Your task to perform on an android device: What's the weather going to be this weekend? Image 0: 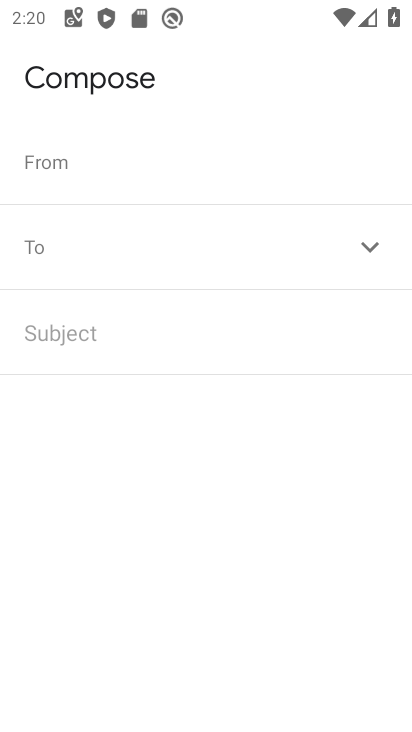
Step 0: drag from (236, 481) to (217, 133)
Your task to perform on an android device: What's the weather going to be this weekend? Image 1: 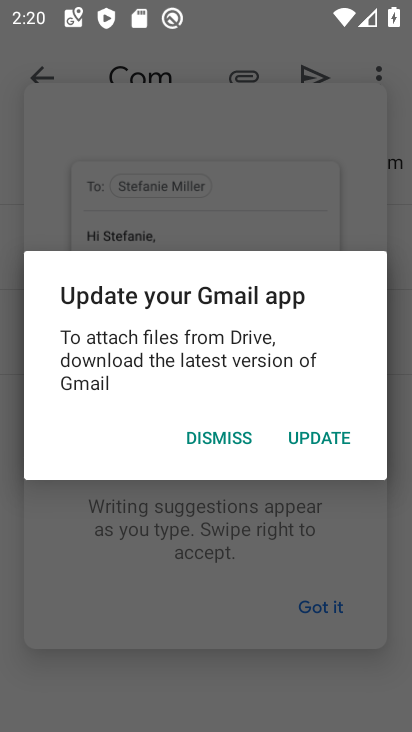
Step 1: press home button
Your task to perform on an android device: What's the weather going to be this weekend? Image 2: 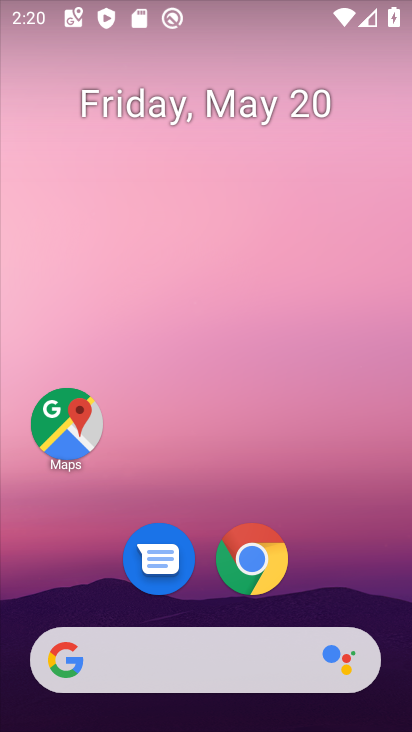
Step 2: click (190, 660)
Your task to perform on an android device: What's the weather going to be this weekend? Image 3: 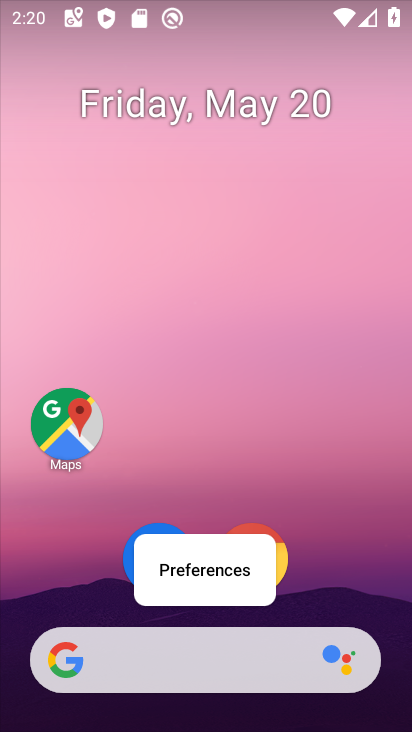
Step 3: click (191, 662)
Your task to perform on an android device: What's the weather going to be this weekend? Image 4: 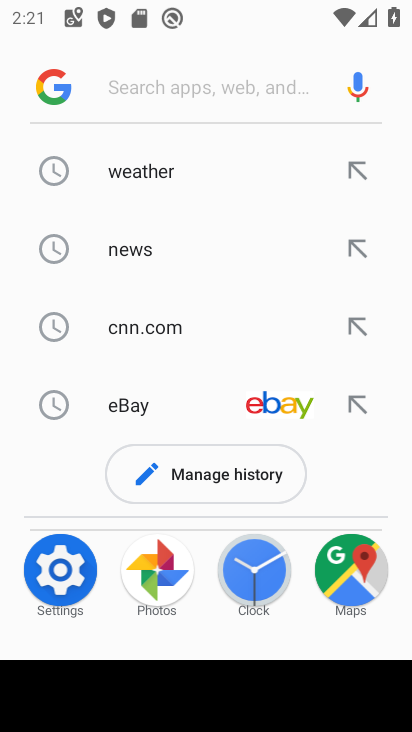
Step 4: click (125, 170)
Your task to perform on an android device: What's the weather going to be this weekend? Image 5: 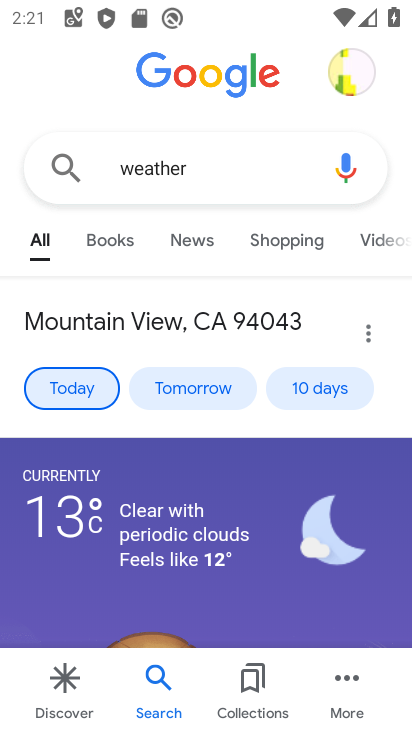
Step 5: click (86, 383)
Your task to perform on an android device: What's the weather going to be this weekend? Image 6: 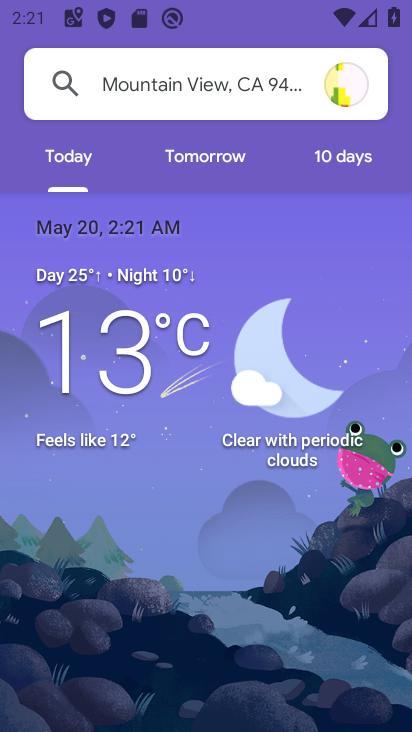
Step 6: click (342, 149)
Your task to perform on an android device: What's the weather going to be this weekend? Image 7: 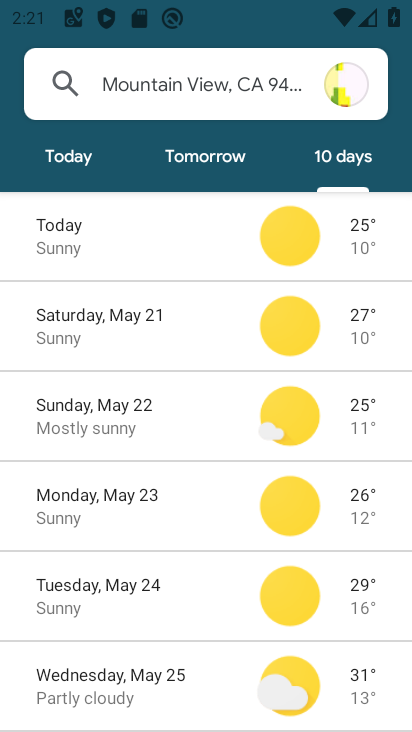
Step 7: click (94, 325)
Your task to perform on an android device: What's the weather going to be this weekend? Image 8: 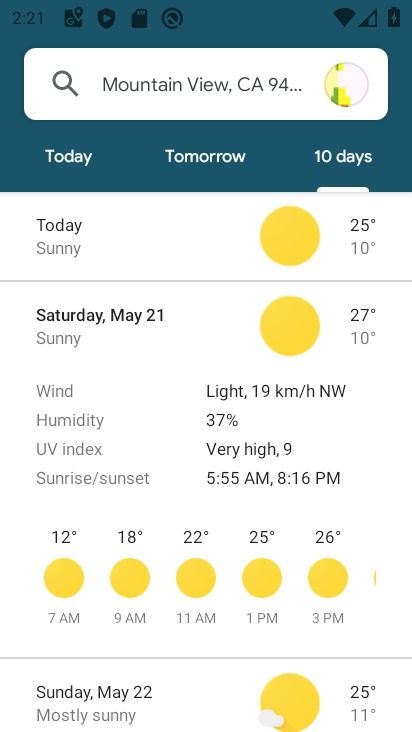
Step 8: task complete